Your task to perform on an android device: turn on wifi Image 0: 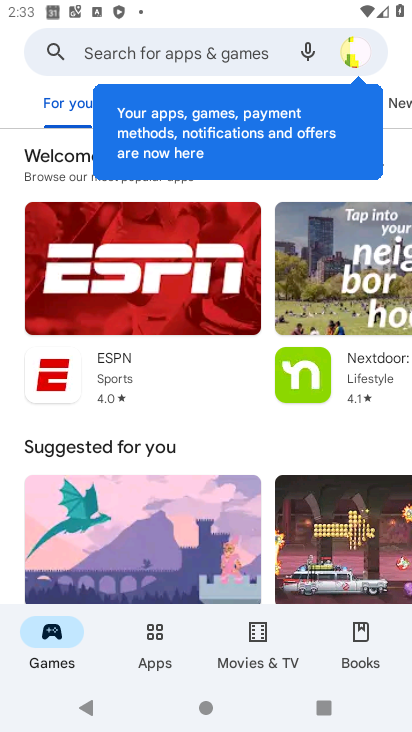
Step 0: press home button
Your task to perform on an android device: turn on wifi Image 1: 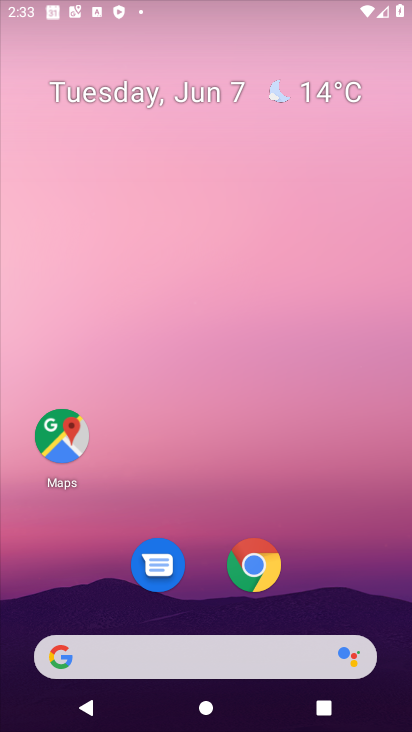
Step 1: drag from (255, 652) to (242, 98)
Your task to perform on an android device: turn on wifi Image 2: 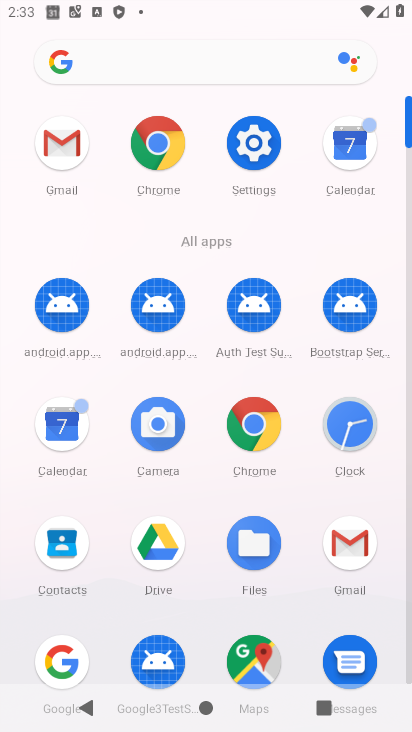
Step 2: click (251, 128)
Your task to perform on an android device: turn on wifi Image 3: 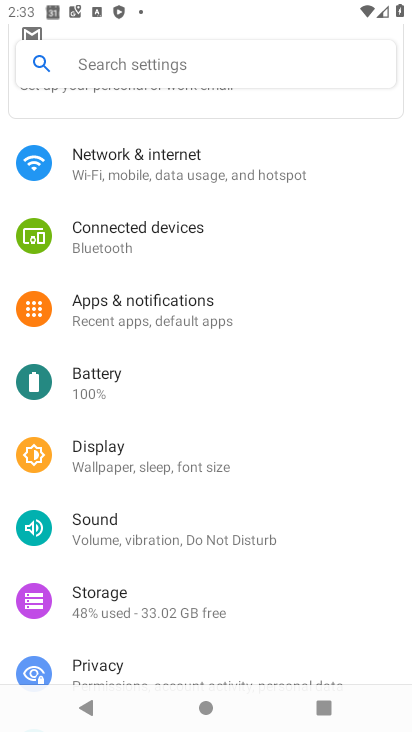
Step 3: drag from (212, 165) to (241, 704)
Your task to perform on an android device: turn on wifi Image 4: 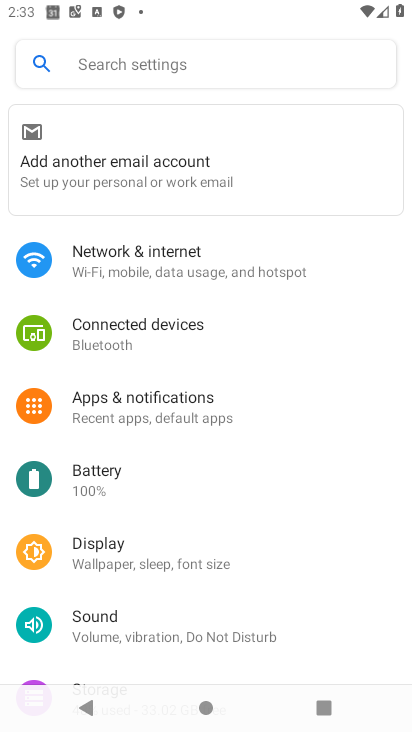
Step 4: click (168, 276)
Your task to perform on an android device: turn on wifi Image 5: 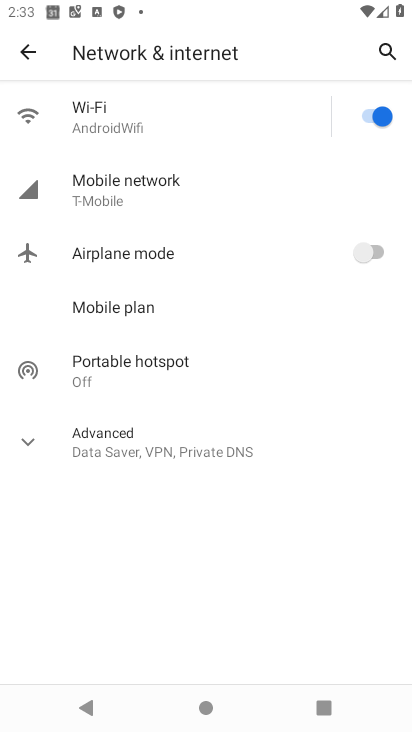
Step 5: task complete